Your task to perform on an android device: create a new album in the google photos Image 0: 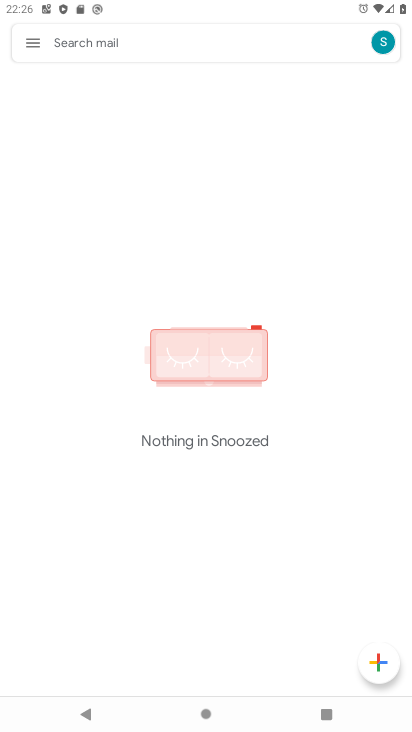
Step 0: press home button
Your task to perform on an android device: create a new album in the google photos Image 1: 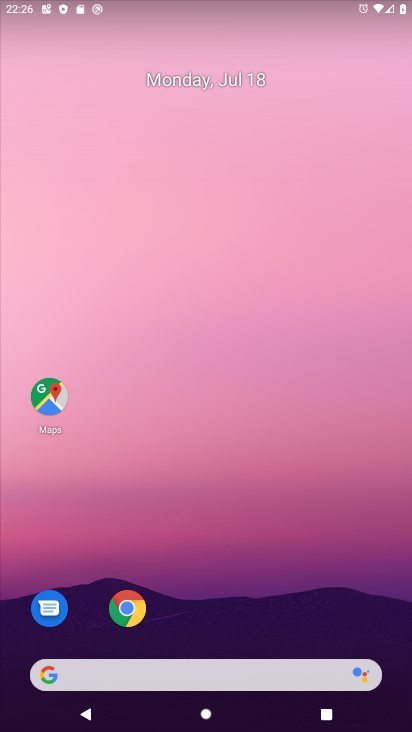
Step 1: drag from (40, 688) to (294, 139)
Your task to perform on an android device: create a new album in the google photos Image 2: 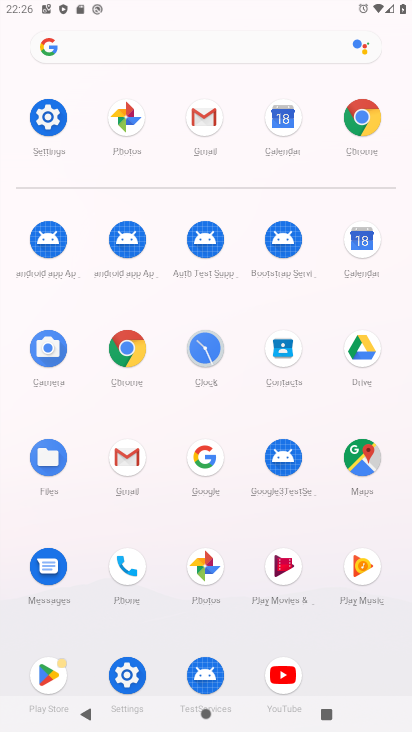
Step 2: click (210, 576)
Your task to perform on an android device: create a new album in the google photos Image 3: 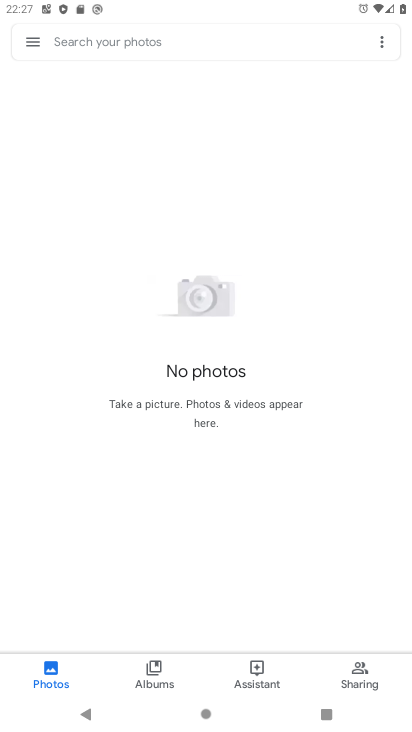
Step 3: click (143, 671)
Your task to perform on an android device: create a new album in the google photos Image 4: 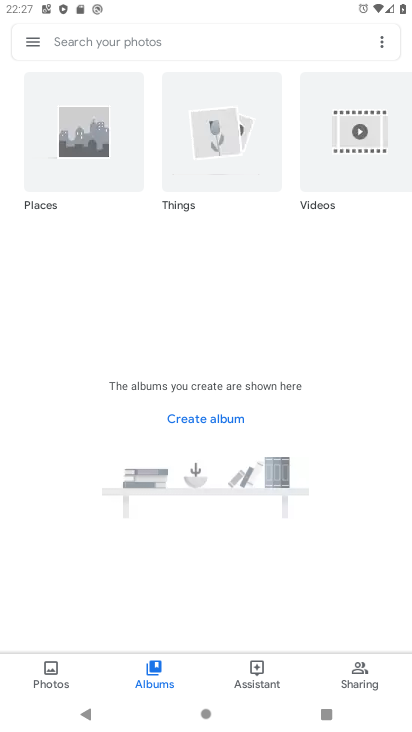
Step 4: task complete